Your task to perform on an android device: turn on translation in the chrome app Image 0: 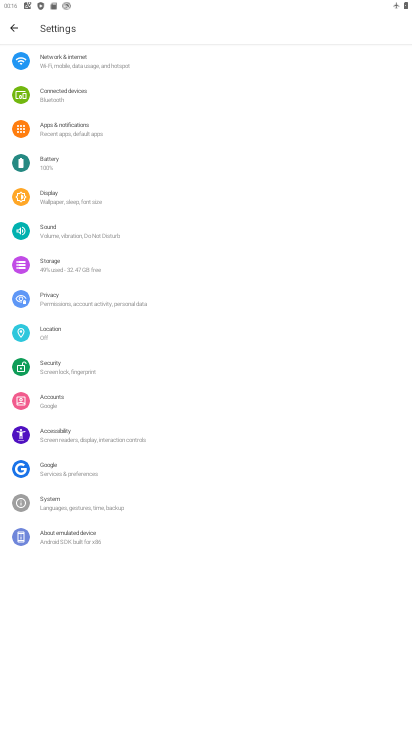
Step 0: press home button
Your task to perform on an android device: turn on translation in the chrome app Image 1: 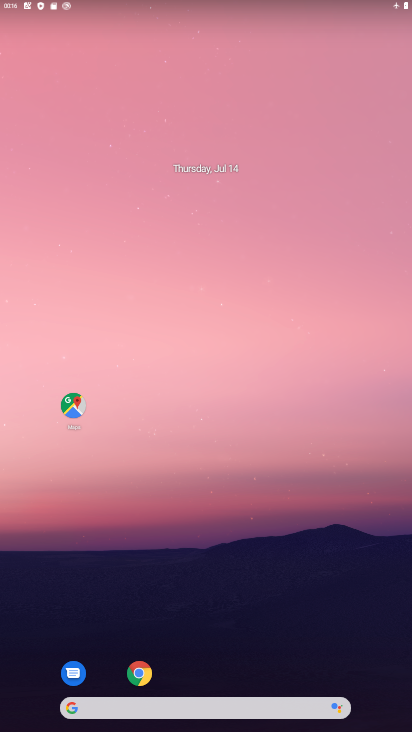
Step 1: click (126, 667)
Your task to perform on an android device: turn on translation in the chrome app Image 2: 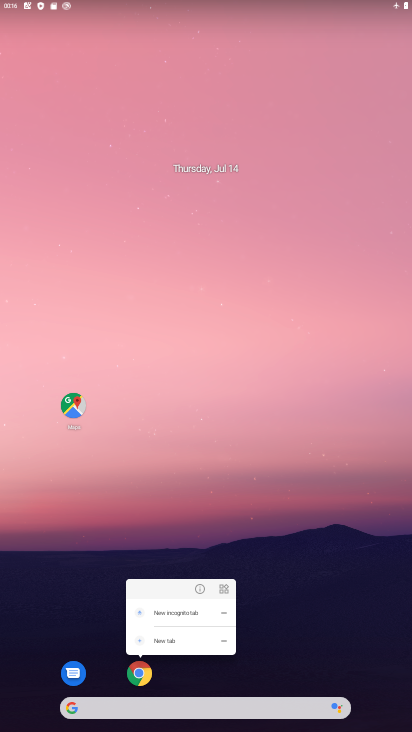
Step 2: click (143, 674)
Your task to perform on an android device: turn on translation in the chrome app Image 3: 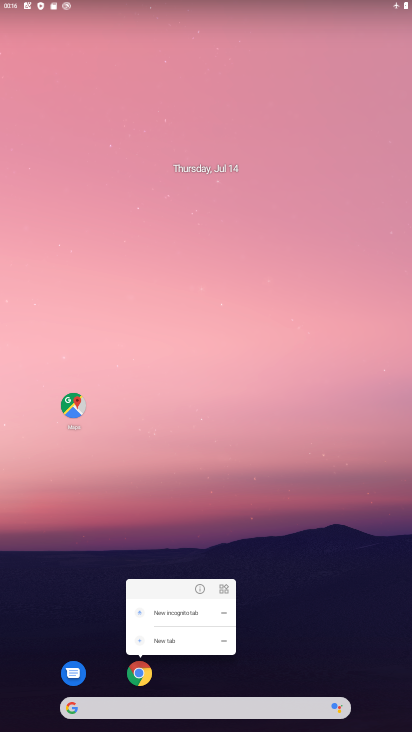
Step 3: click (142, 670)
Your task to perform on an android device: turn on translation in the chrome app Image 4: 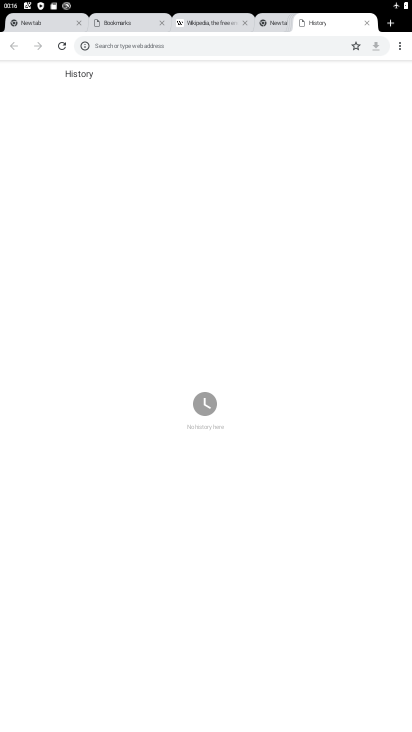
Step 4: click (399, 48)
Your task to perform on an android device: turn on translation in the chrome app Image 5: 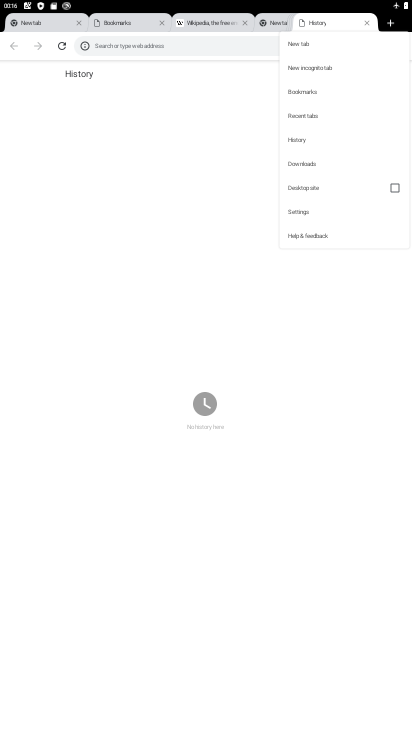
Step 5: click (313, 210)
Your task to perform on an android device: turn on translation in the chrome app Image 6: 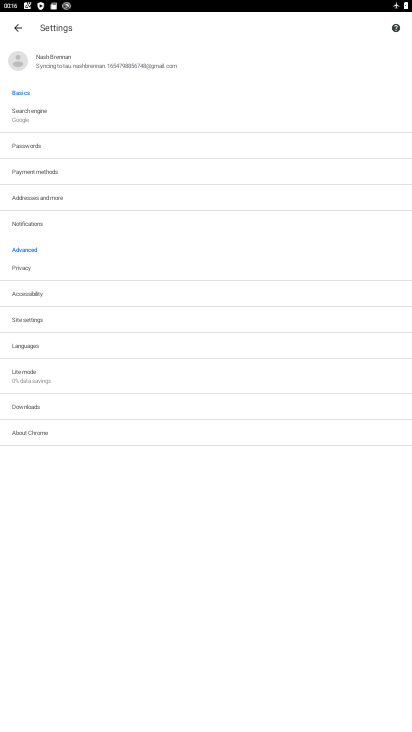
Step 6: click (67, 350)
Your task to perform on an android device: turn on translation in the chrome app Image 7: 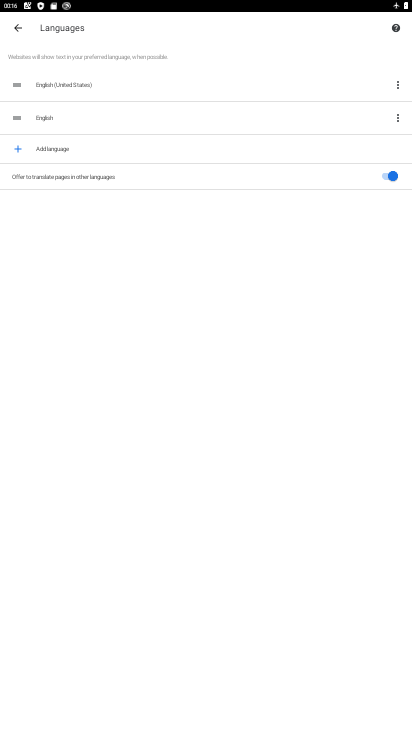
Step 7: task complete